Your task to perform on an android device: Go to settings Image 0: 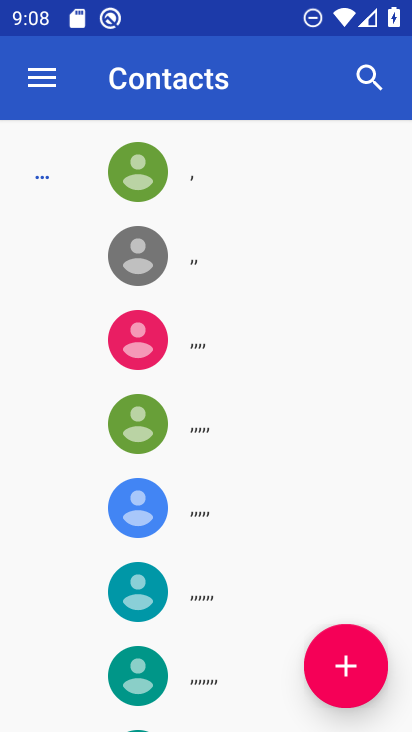
Step 0: press home button
Your task to perform on an android device: Go to settings Image 1: 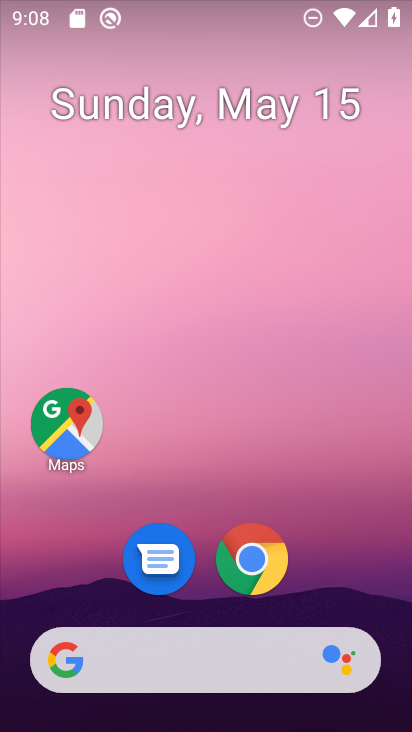
Step 1: drag from (340, 573) to (354, 170)
Your task to perform on an android device: Go to settings Image 2: 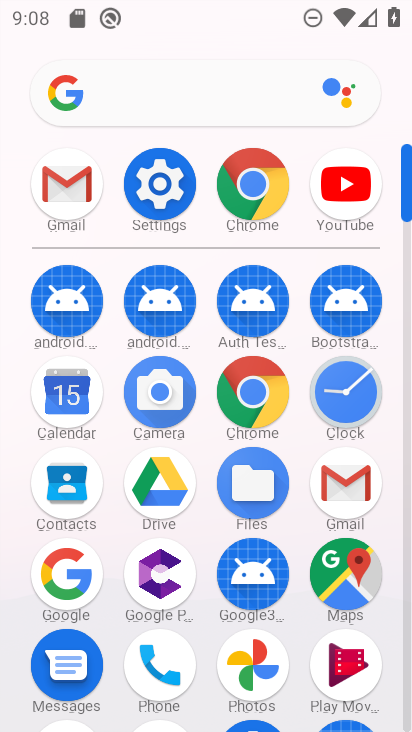
Step 2: click (161, 200)
Your task to perform on an android device: Go to settings Image 3: 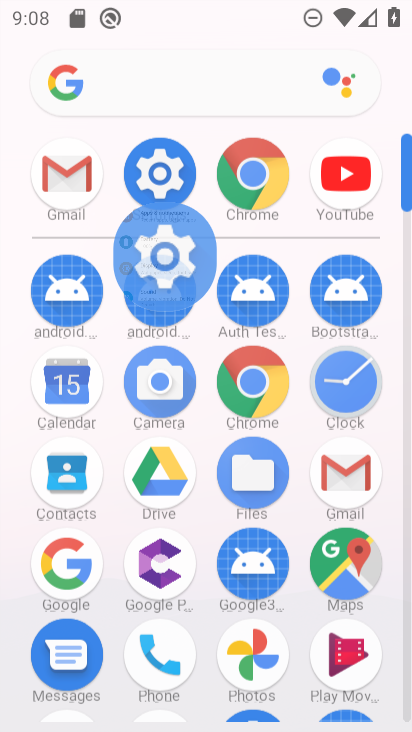
Step 3: task complete